Your task to perform on an android device: Open network settings Image 0: 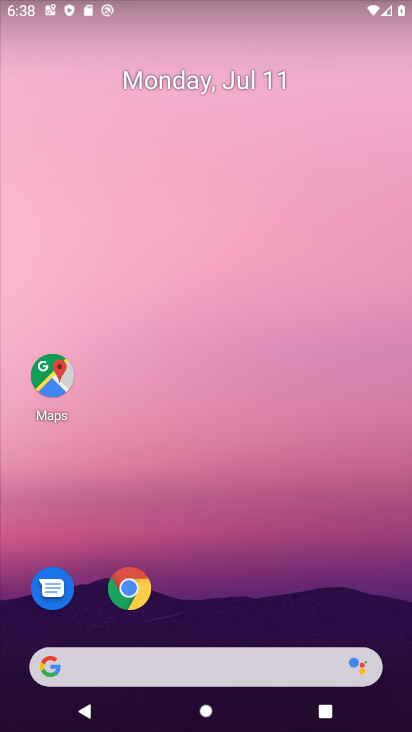
Step 0: drag from (391, 640) to (318, 371)
Your task to perform on an android device: Open network settings Image 1: 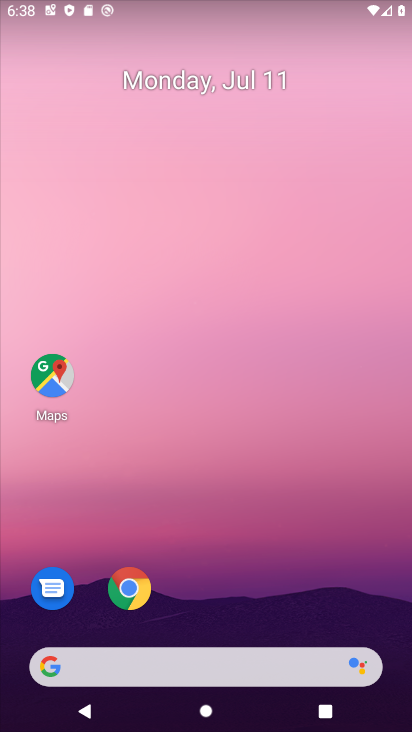
Step 1: drag from (390, 599) to (274, 148)
Your task to perform on an android device: Open network settings Image 2: 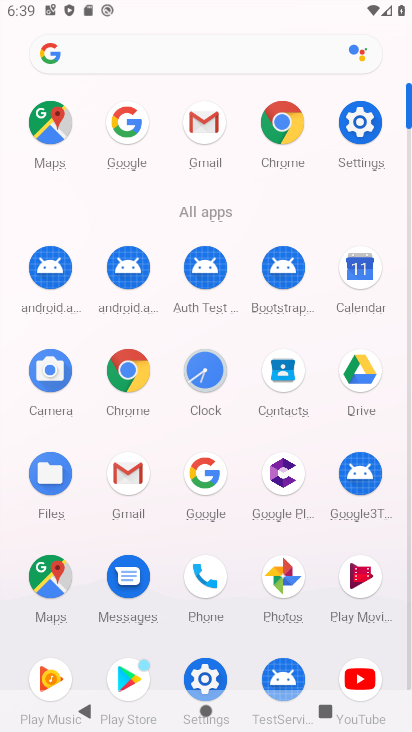
Step 2: click (345, 135)
Your task to perform on an android device: Open network settings Image 3: 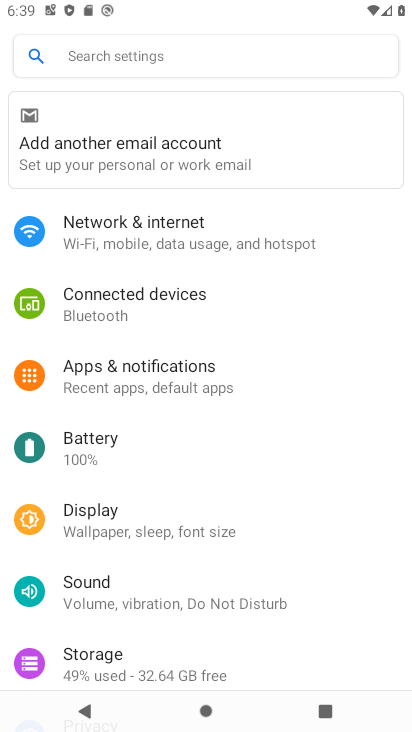
Step 3: click (159, 244)
Your task to perform on an android device: Open network settings Image 4: 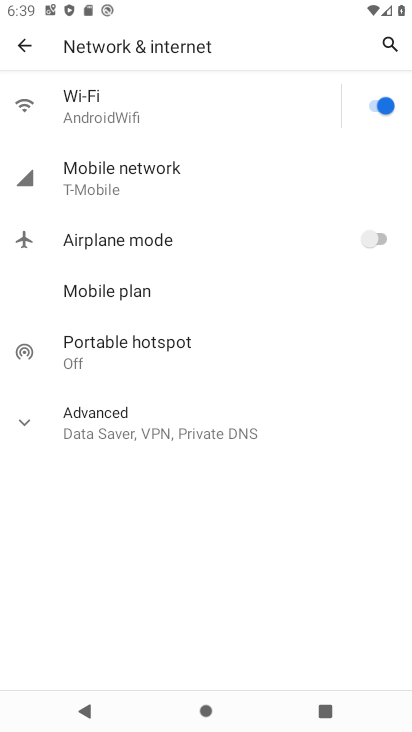
Step 4: task complete